Your task to perform on an android device: turn notification dots on Image 0: 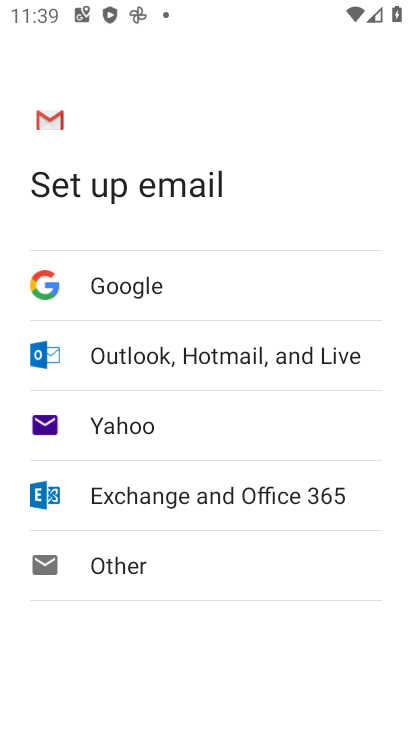
Step 0: press home button
Your task to perform on an android device: turn notification dots on Image 1: 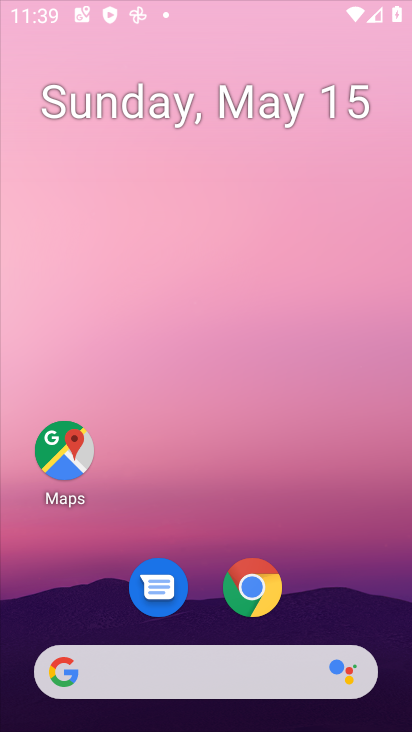
Step 1: drag from (385, 640) to (298, 69)
Your task to perform on an android device: turn notification dots on Image 2: 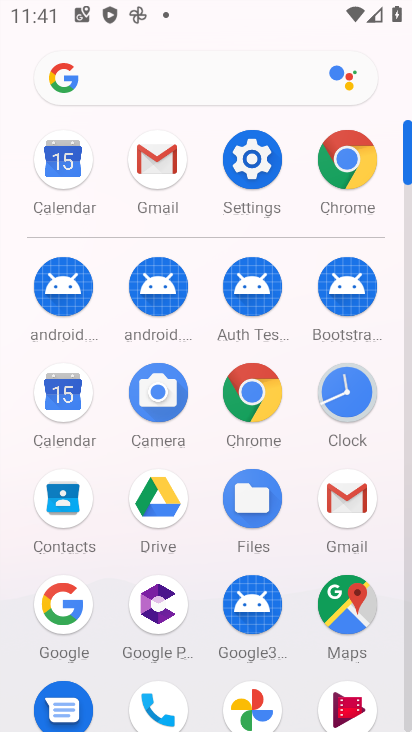
Step 2: click (266, 177)
Your task to perform on an android device: turn notification dots on Image 3: 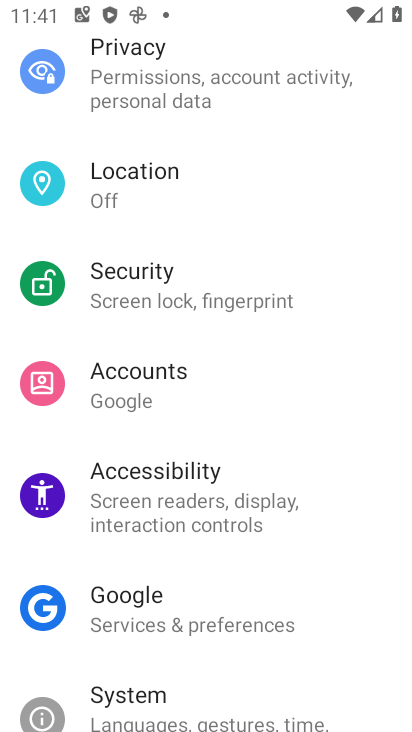
Step 3: drag from (181, 114) to (164, 673)
Your task to perform on an android device: turn notification dots on Image 4: 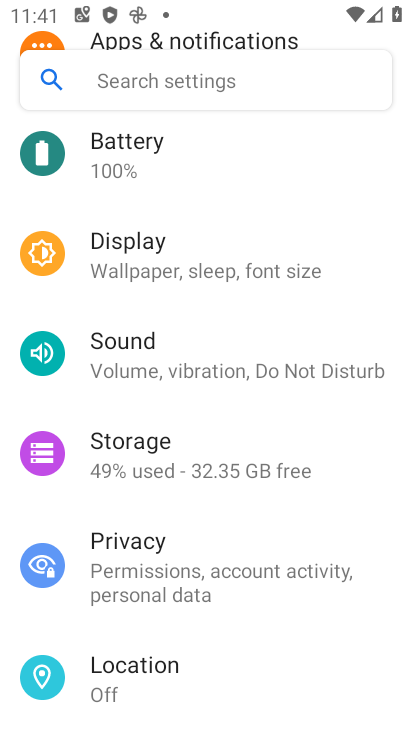
Step 4: drag from (198, 182) to (212, 563)
Your task to perform on an android device: turn notification dots on Image 5: 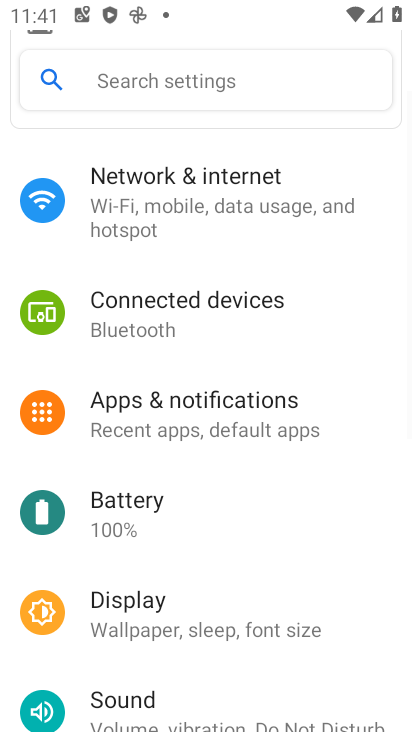
Step 5: click (197, 404)
Your task to perform on an android device: turn notification dots on Image 6: 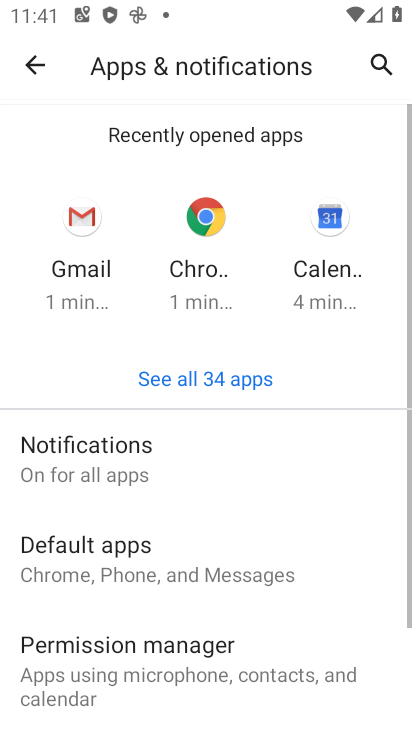
Step 6: click (127, 465)
Your task to perform on an android device: turn notification dots on Image 7: 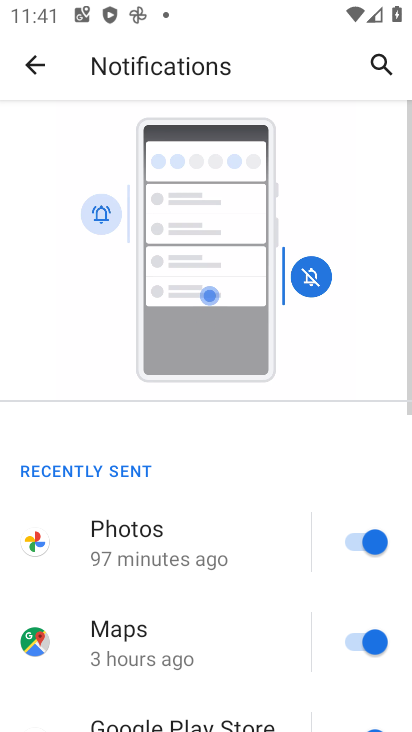
Step 7: drag from (170, 617) to (220, 8)
Your task to perform on an android device: turn notification dots on Image 8: 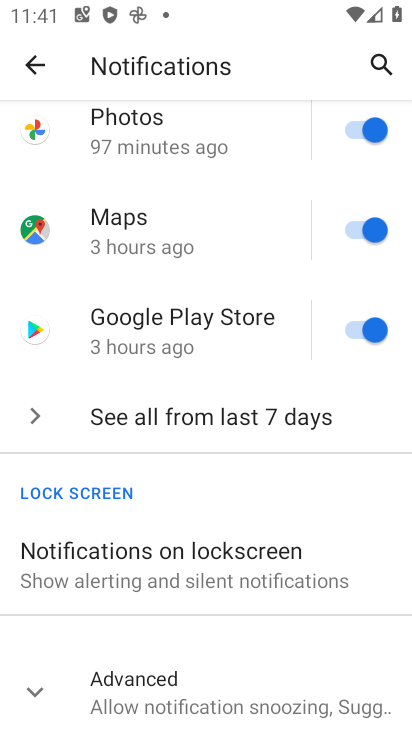
Step 8: click (55, 677)
Your task to perform on an android device: turn notification dots on Image 9: 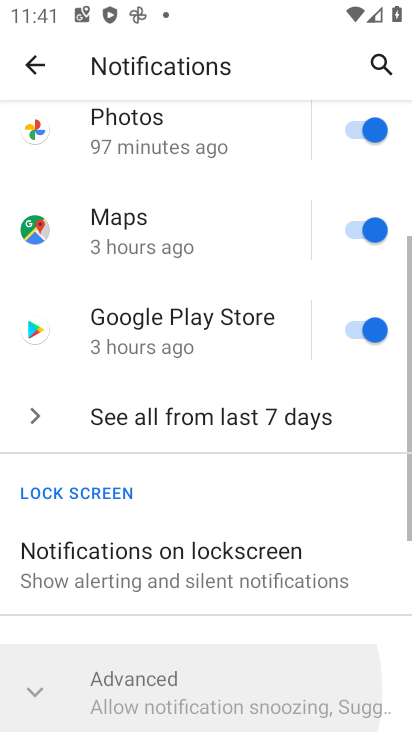
Step 9: drag from (154, 663) to (215, 62)
Your task to perform on an android device: turn notification dots on Image 10: 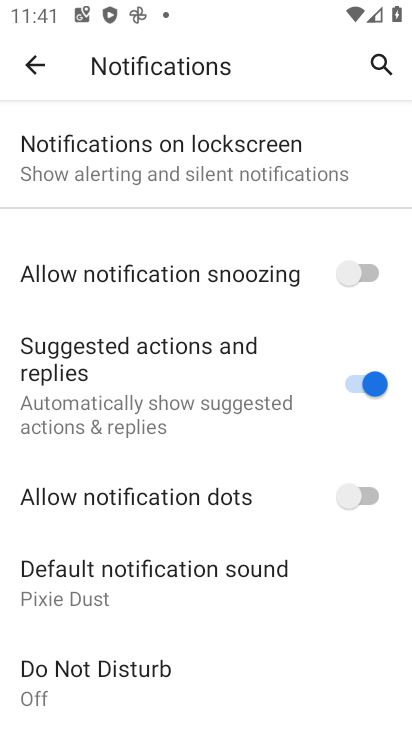
Step 10: click (296, 498)
Your task to perform on an android device: turn notification dots on Image 11: 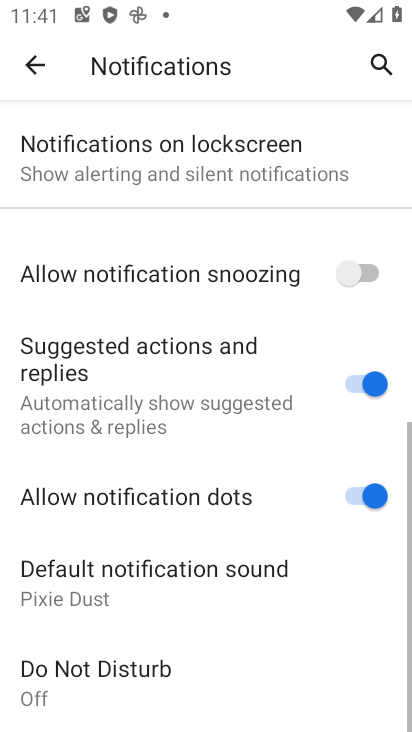
Step 11: task complete